Your task to perform on an android device: Open calendar and show me the second week of next month Image 0: 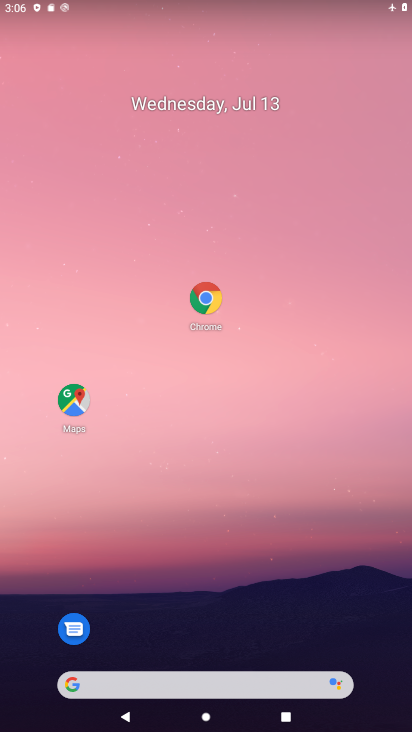
Step 0: drag from (146, 593) to (165, 270)
Your task to perform on an android device: Open calendar and show me the second week of next month Image 1: 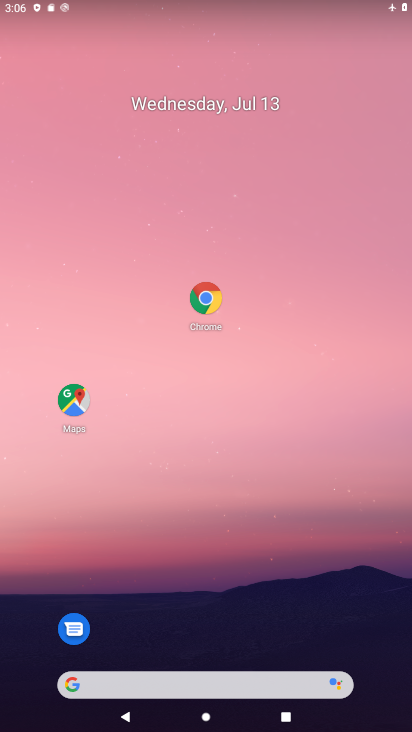
Step 1: drag from (246, 592) to (286, 189)
Your task to perform on an android device: Open calendar and show me the second week of next month Image 2: 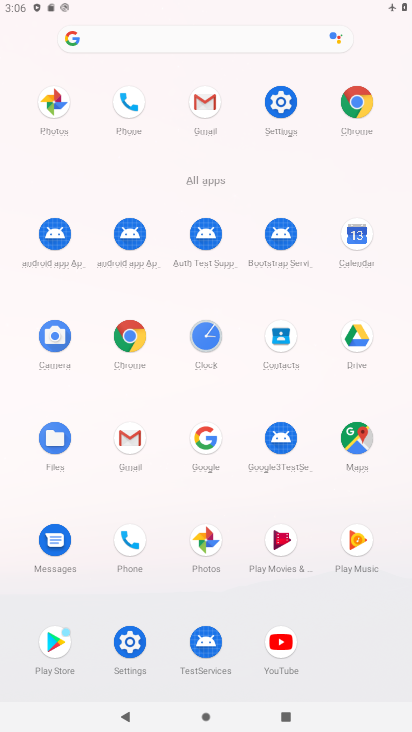
Step 2: click (343, 237)
Your task to perform on an android device: Open calendar and show me the second week of next month Image 3: 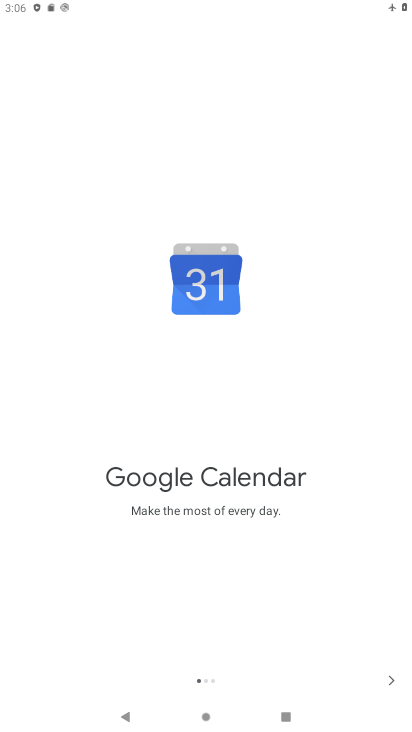
Step 3: click (382, 673)
Your task to perform on an android device: Open calendar and show me the second week of next month Image 4: 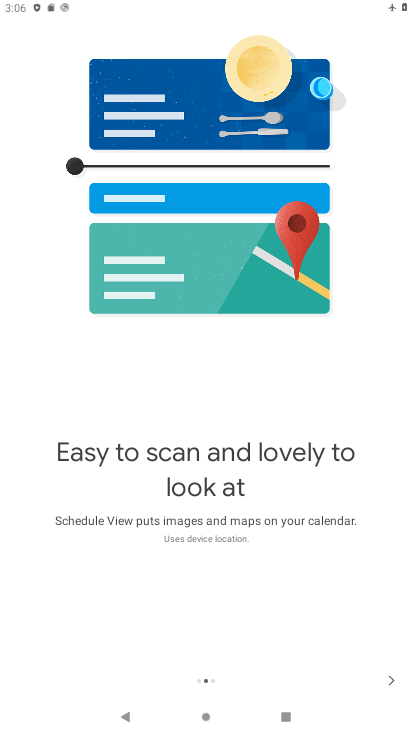
Step 4: click (382, 673)
Your task to perform on an android device: Open calendar and show me the second week of next month Image 5: 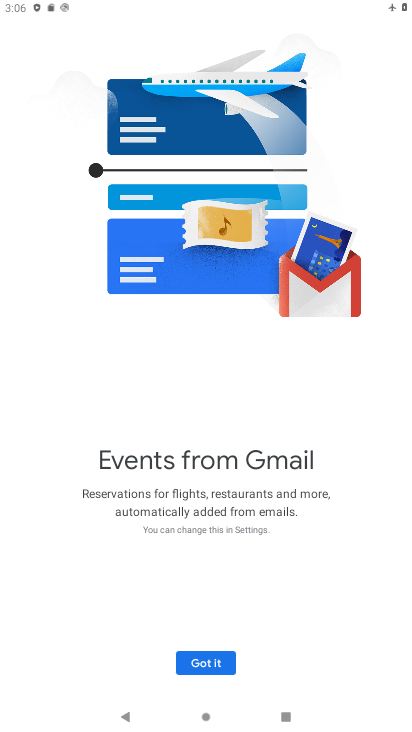
Step 5: click (195, 649)
Your task to perform on an android device: Open calendar and show me the second week of next month Image 6: 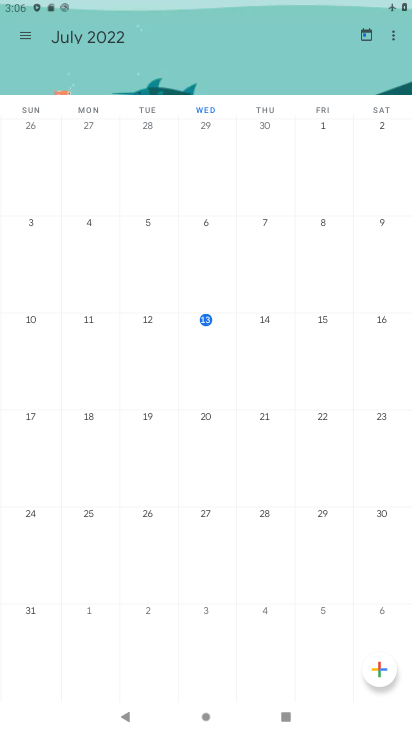
Step 6: click (24, 35)
Your task to perform on an android device: Open calendar and show me the second week of next month Image 7: 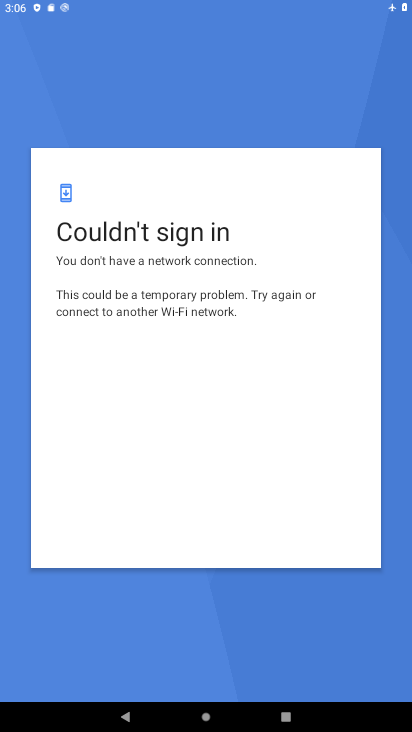
Step 7: task complete